Your task to perform on an android device: set the stopwatch Image 0: 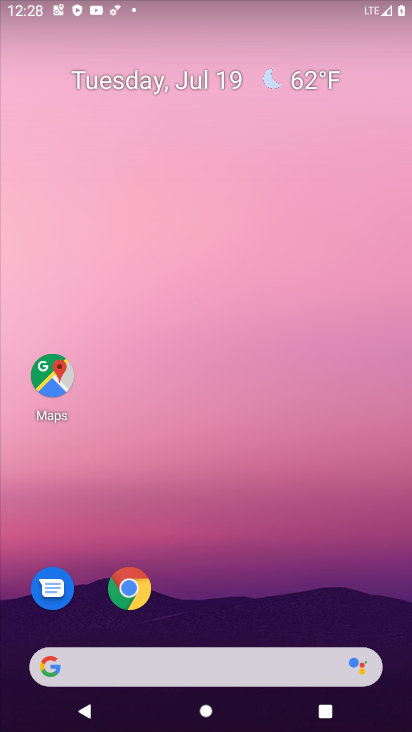
Step 0: drag from (244, 586) to (261, 97)
Your task to perform on an android device: set the stopwatch Image 1: 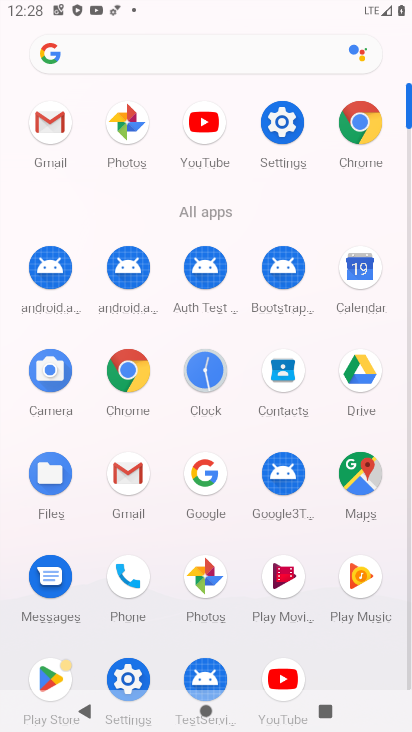
Step 1: click (206, 376)
Your task to perform on an android device: set the stopwatch Image 2: 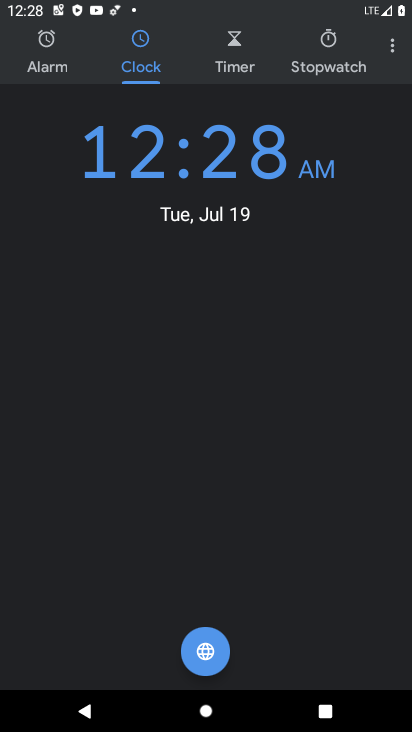
Step 2: click (336, 38)
Your task to perform on an android device: set the stopwatch Image 3: 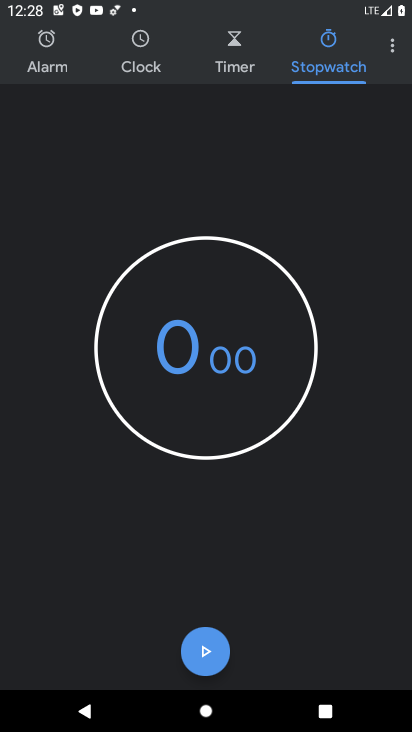
Step 3: click (204, 664)
Your task to perform on an android device: set the stopwatch Image 4: 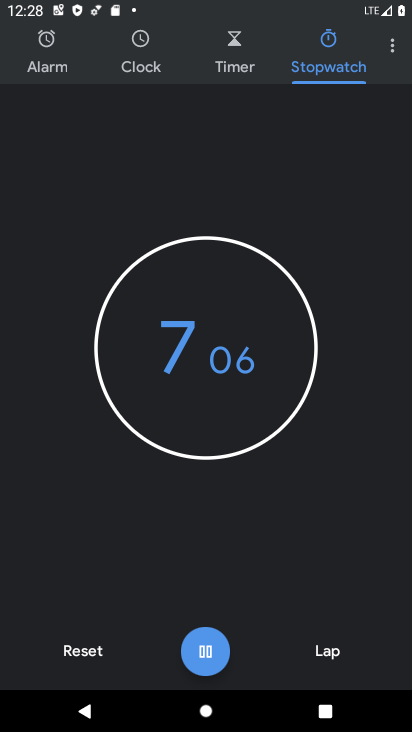
Step 4: task complete